Your task to perform on an android device: Open eBay Image 0: 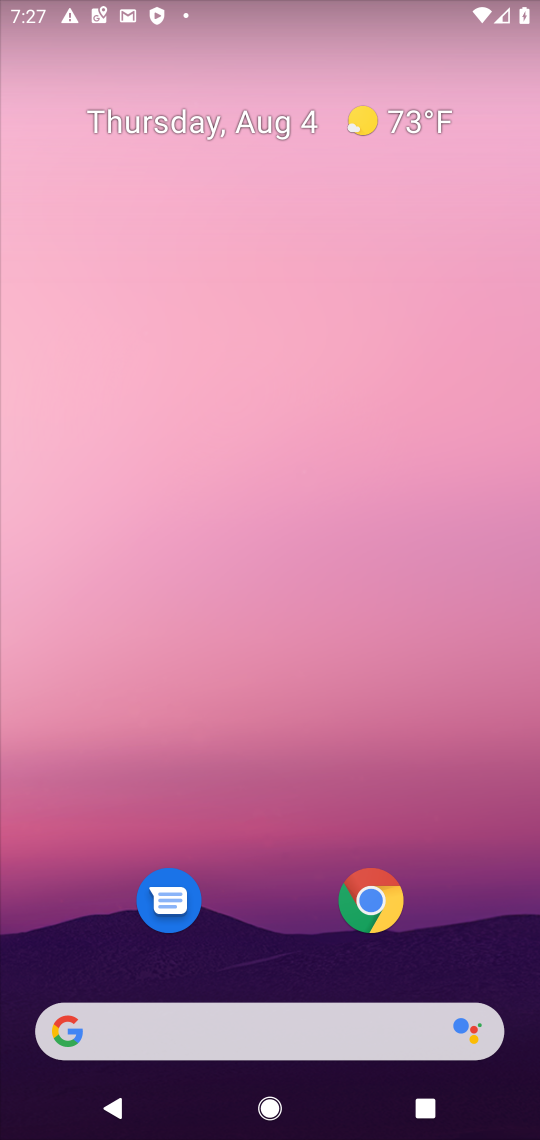
Step 0: click (371, 904)
Your task to perform on an android device: Open eBay Image 1: 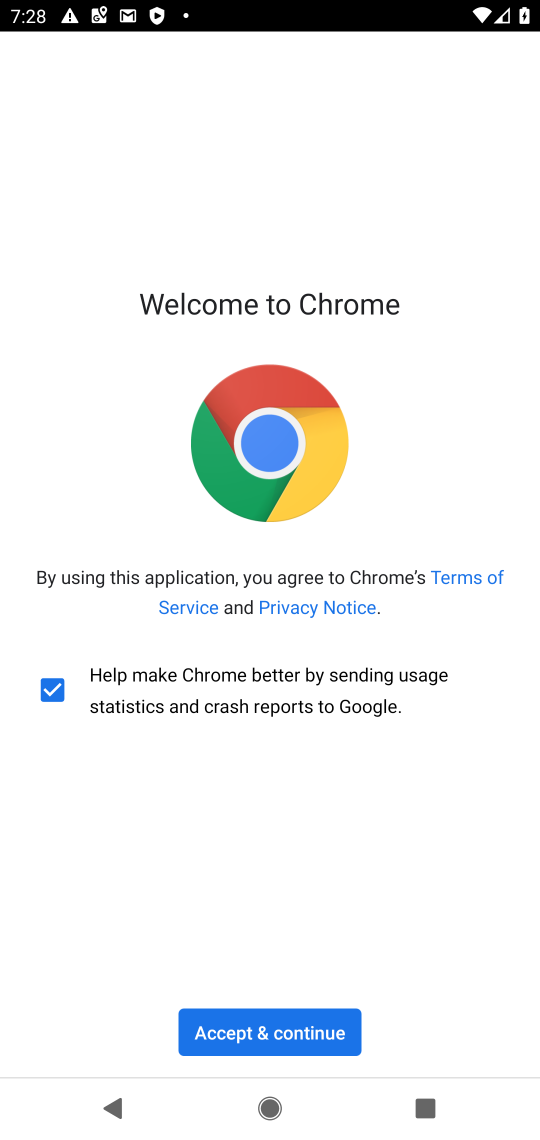
Step 1: click (264, 1033)
Your task to perform on an android device: Open eBay Image 2: 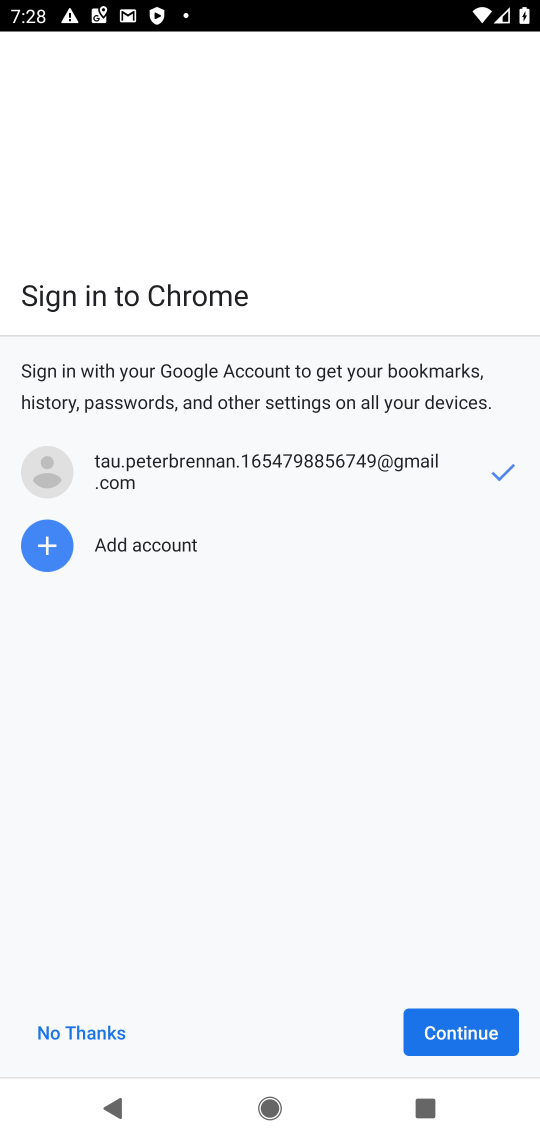
Step 2: click (462, 1032)
Your task to perform on an android device: Open eBay Image 3: 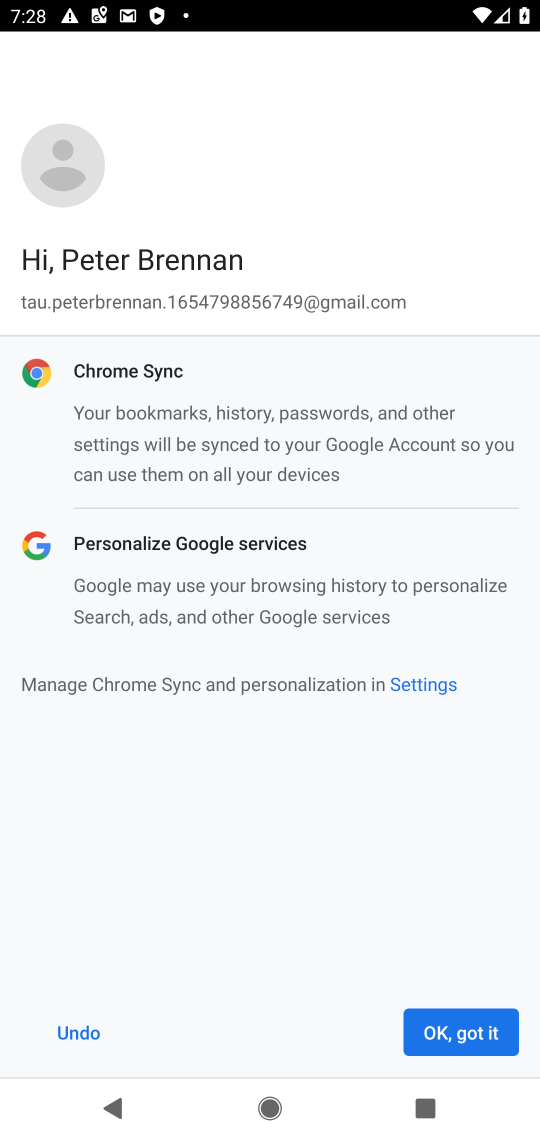
Step 3: click (462, 1032)
Your task to perform on an android device: Open eBay Image 4: 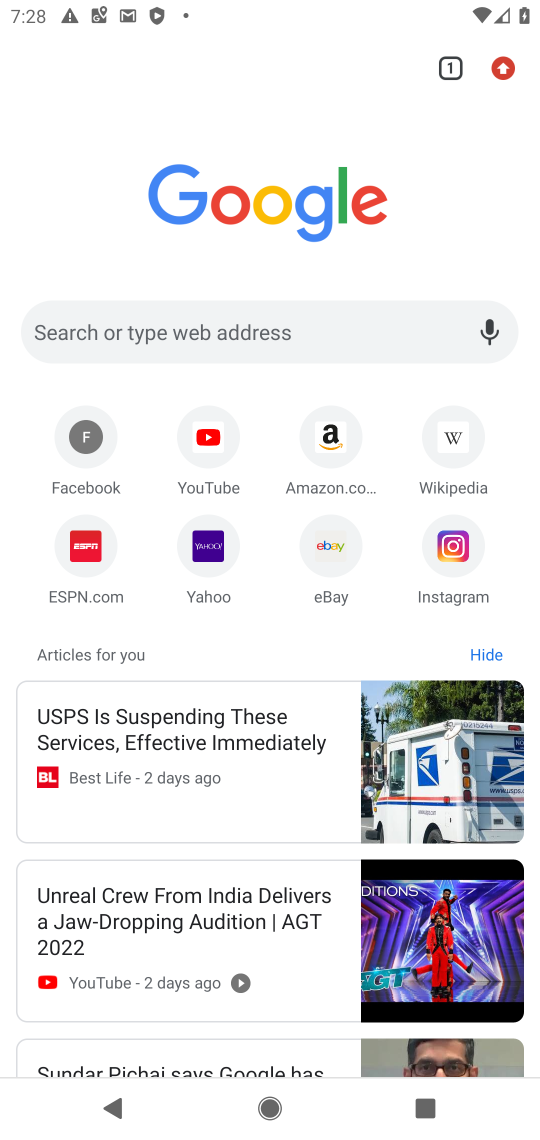
Step 4: click (325, 549)
Your task to perform on an android device: Open eBay Image 5: 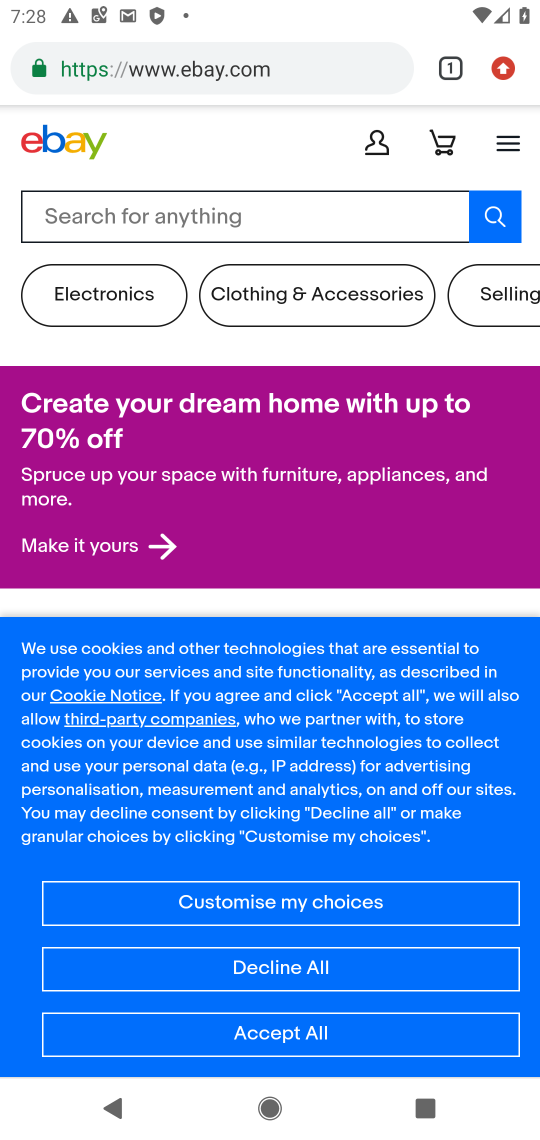
Step 5: click (298, 1033)
Your task to perform on an android device: Open eBay Image 6: 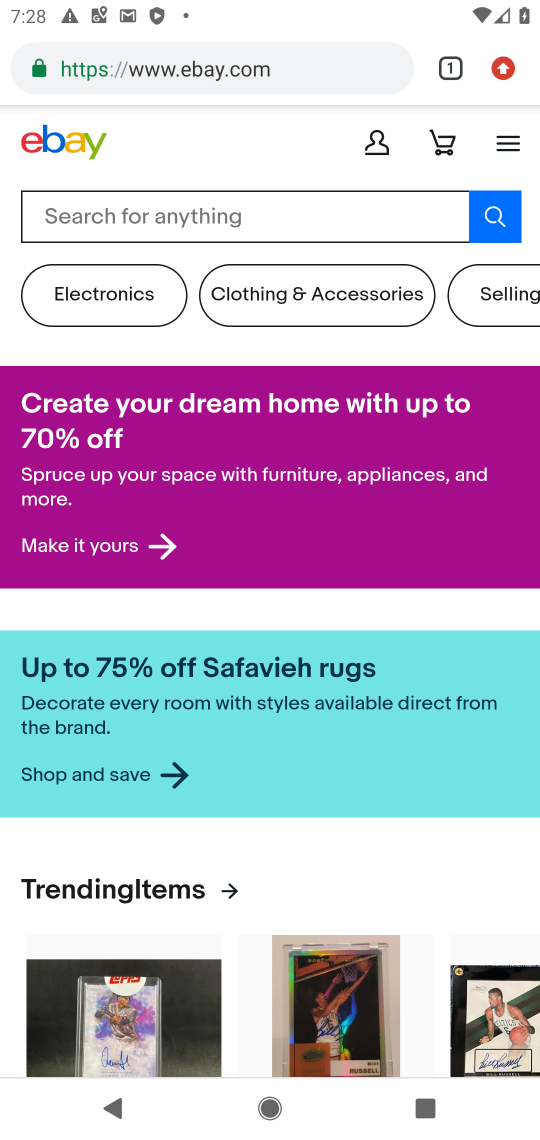
Step 6: task complete